Your task to perform on an android device: Open Youtube and go to "Your channel" Image 0: 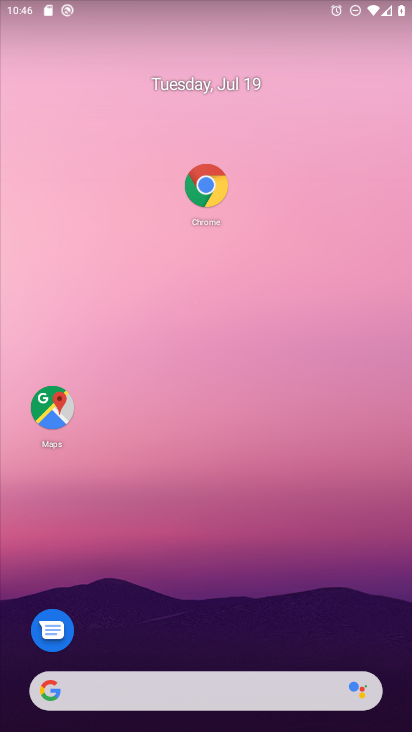
Step 0: drag from (232, 498) to (254, 255)
Your task to perform on an android device: Open Youtube and go to "Your channel" Image 1: 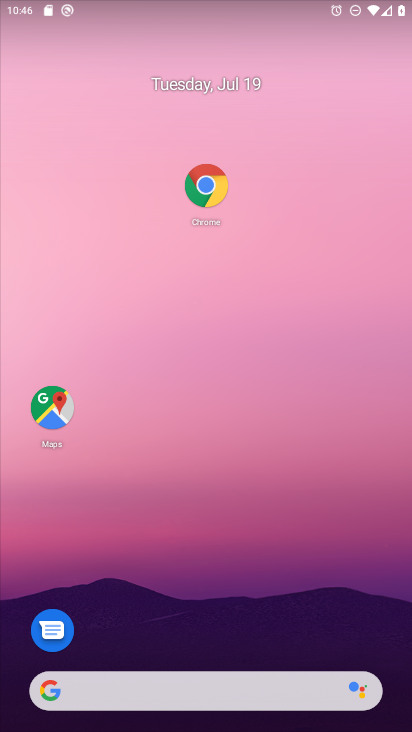
Step 1: drag from (196, 546) to (238, 108)
Your task to perform on an android device: Open Youtube and go to "Your channel" Image 2: 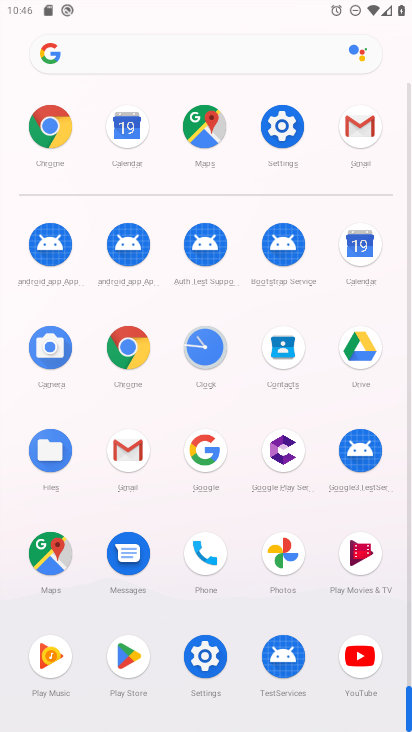
Step 2: drag from (227, 496) to (264, 279)
Your task to perform on an android device: Open Youtube and go to "Your channel" Image 3: 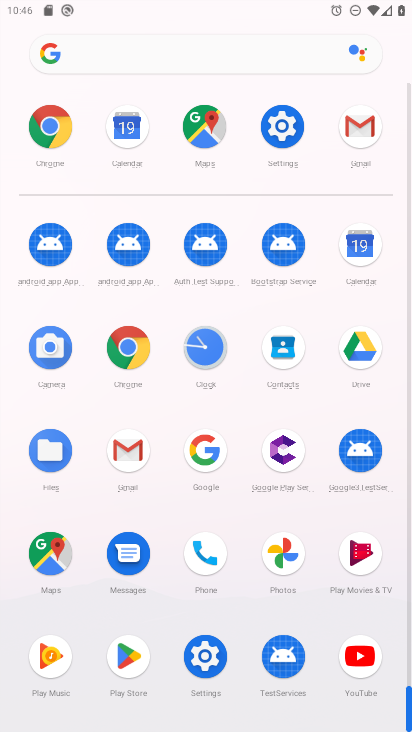
Step 3: click (360, 663)
Your task to perform on an android device: Open Youtube and go to "Your channel" Image 4: 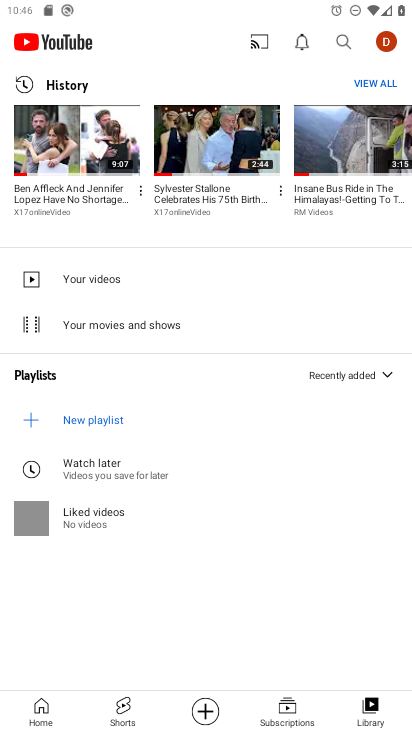
Step 4: click (387, 50)
Your task to perform on an android device: Open Youtube and go to "Your channel" Image 5: 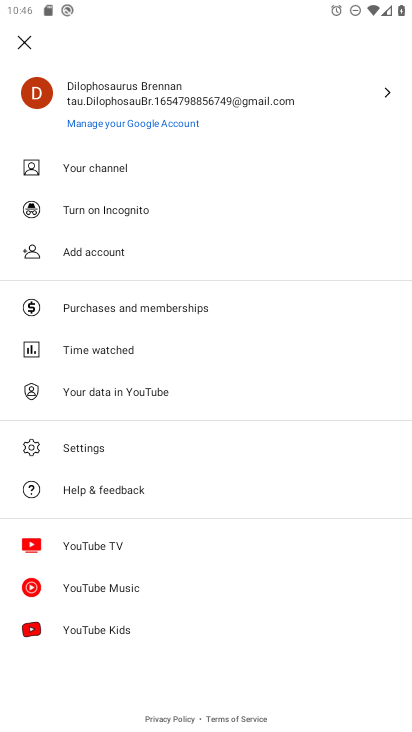
Step 5: click (93, 172)
Your task to perform on an android device: Open Youtube and go to "Your channel" Image 6: 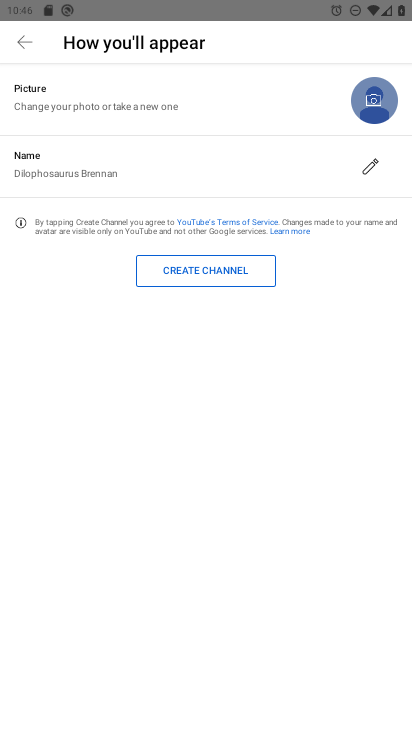
Step 6: task complete